Your task to perform on an android device: Go to Yahoo.com Image 0: 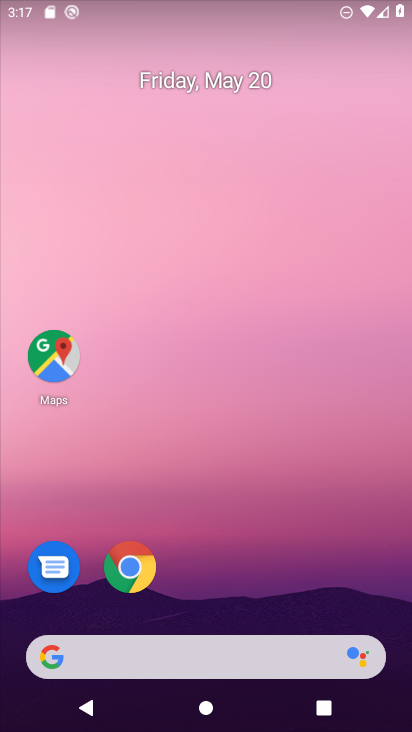
Step 0: click (127, 573)
Your task to perform on an android device: Go to Yahoo.com Image 1: 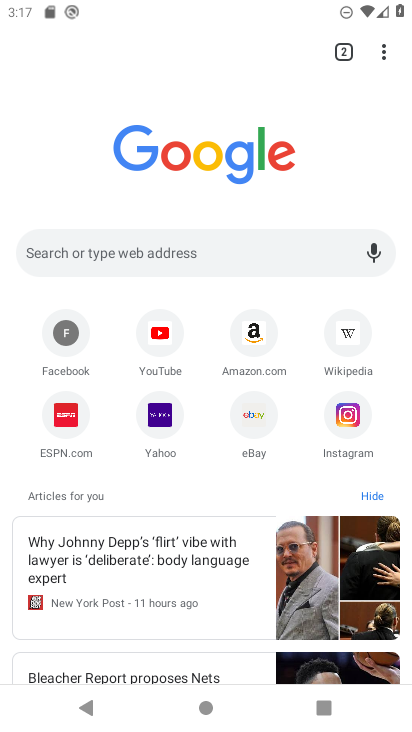
Step 1: click (163, 415)
Your task to perform on an android device: Go to Yahoo.com Image 2: 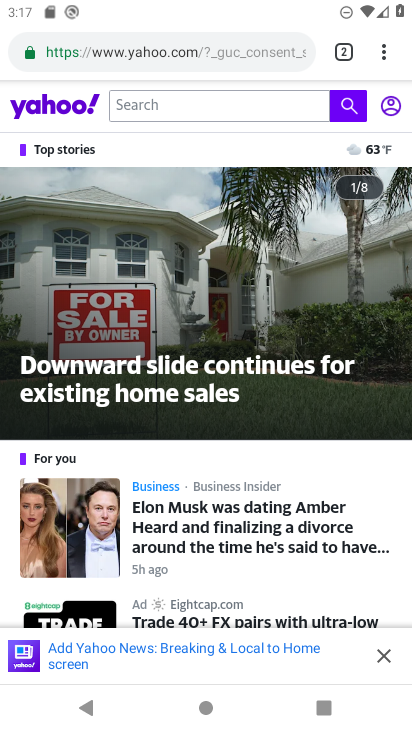
Step 2: task complete